Your task to perform on an android device: turn off translation in the chrome app Image 0: 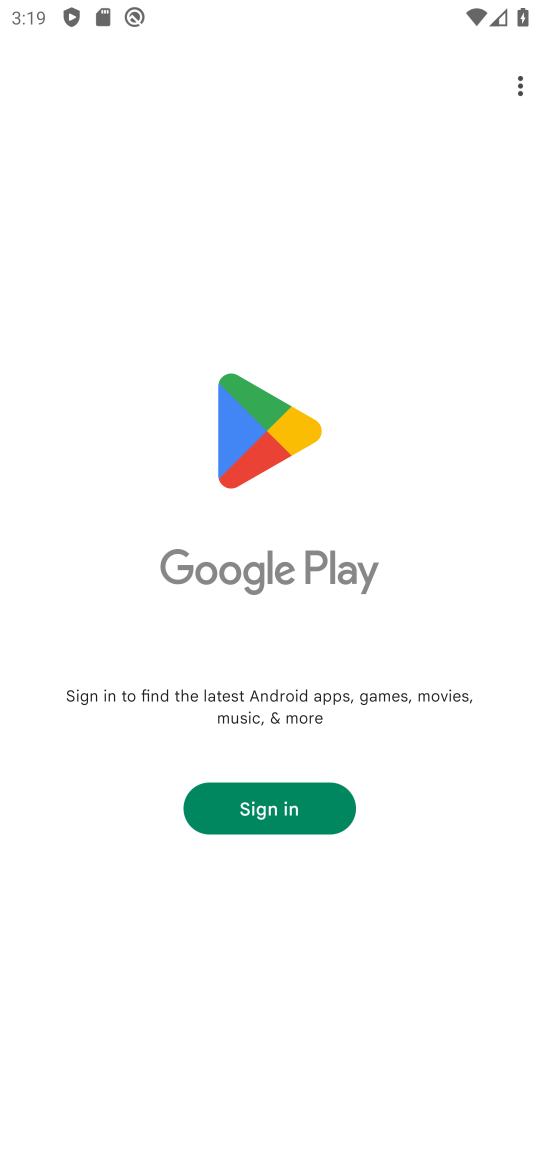
Step 0: press back button
Your task to perform on an android device: turn off translation in the chrome app Image 1: 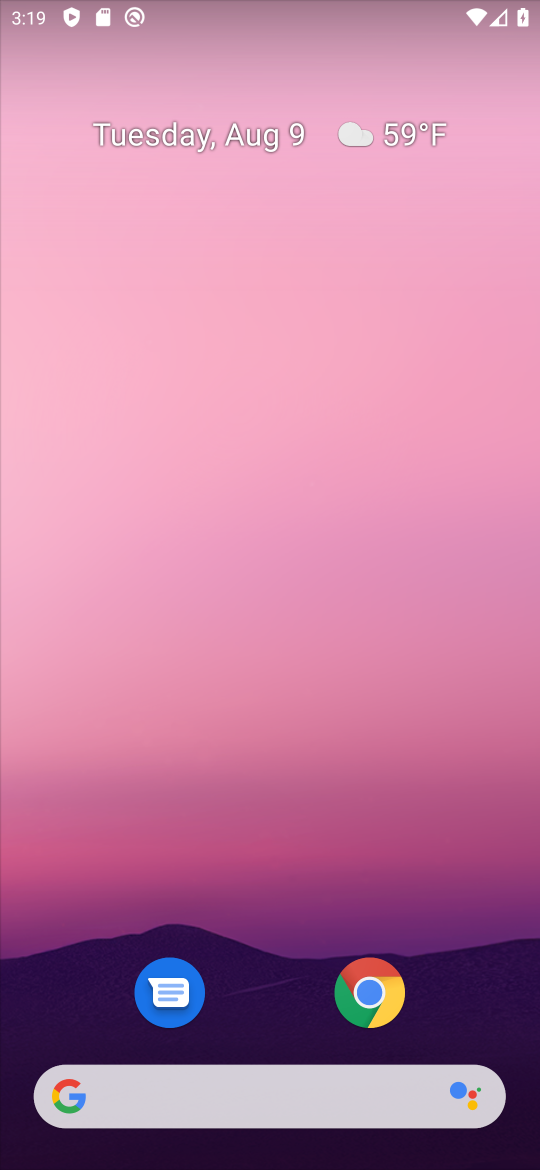
Step 1: click (383, 984)
Your task to perform on an android device: turn off translation in the chrome app Image 2: 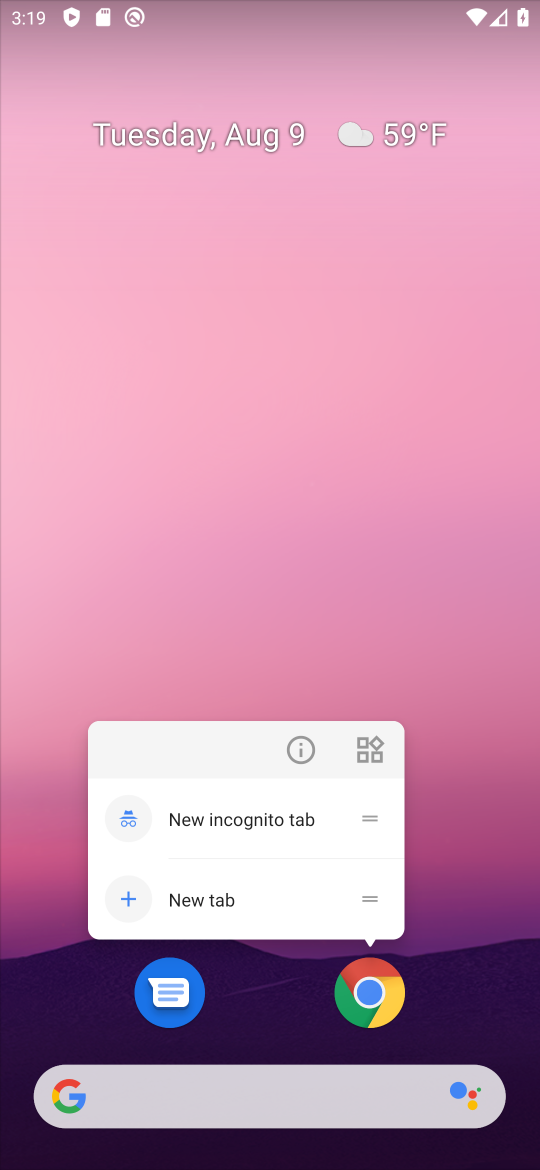
Step 2: click (373, 987)
Your task to perform on an android device: turn off translation in the chrome app Image 3: 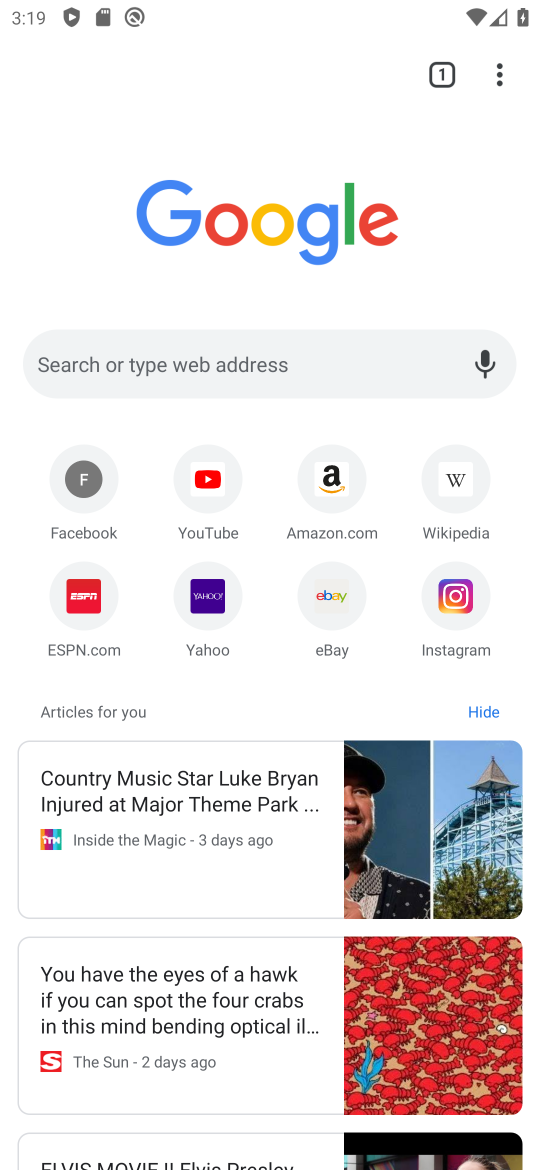
Step 3: drag from (501, 67) to (258, 617)
Your task to perform on an android device: turn off translation in the chrome app Image 4: 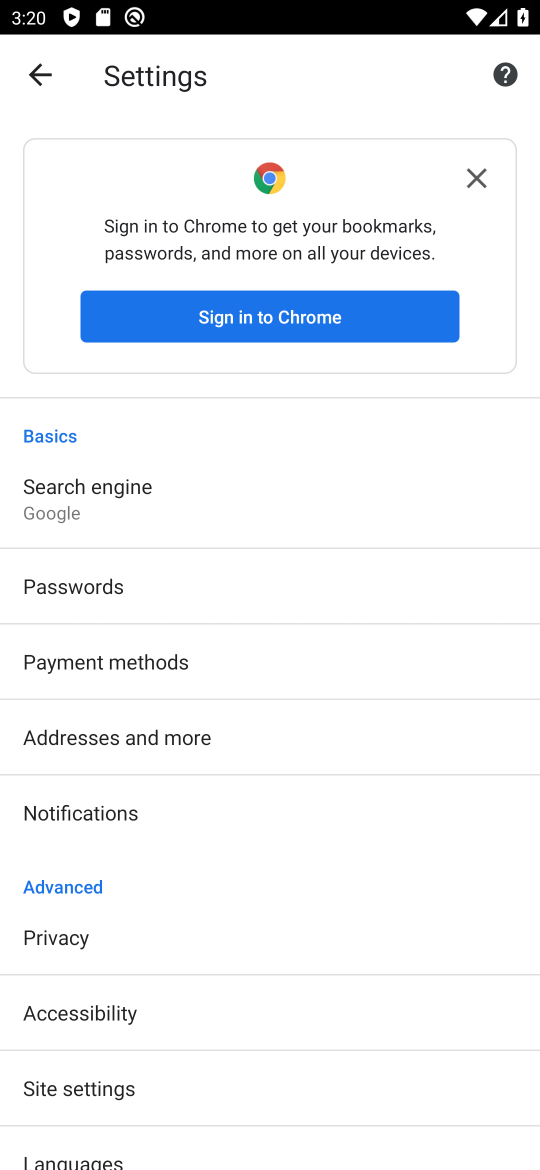
Step 4: click (71, 1146)
Your task to perform on an android device: turn off translation in the chrome app Image 5: 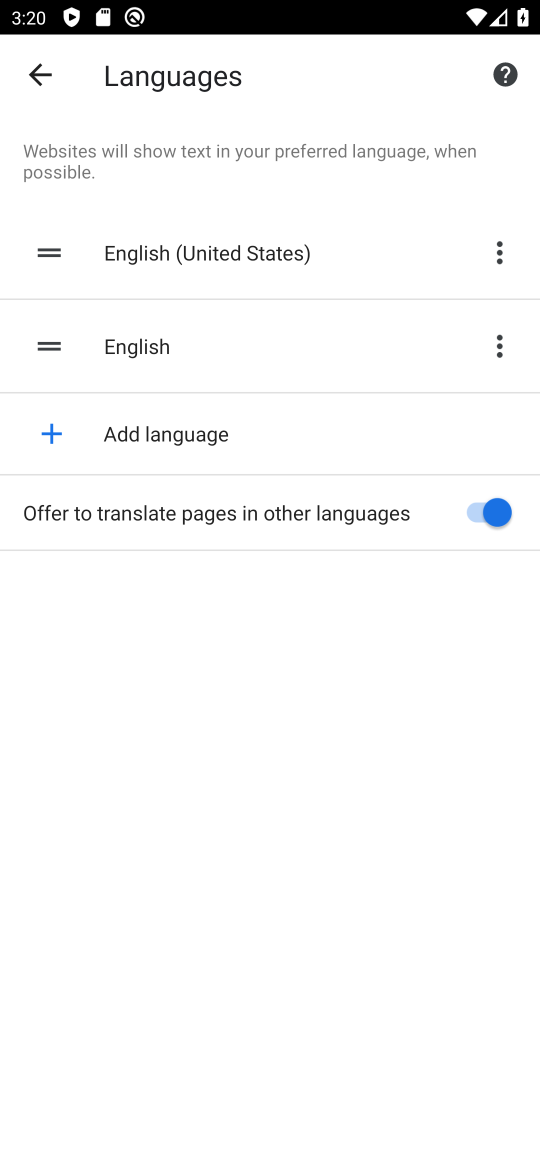
Step 5: click (484, 500)
Your task to perform on an android device: turn off translation in the chrome app Image 6: 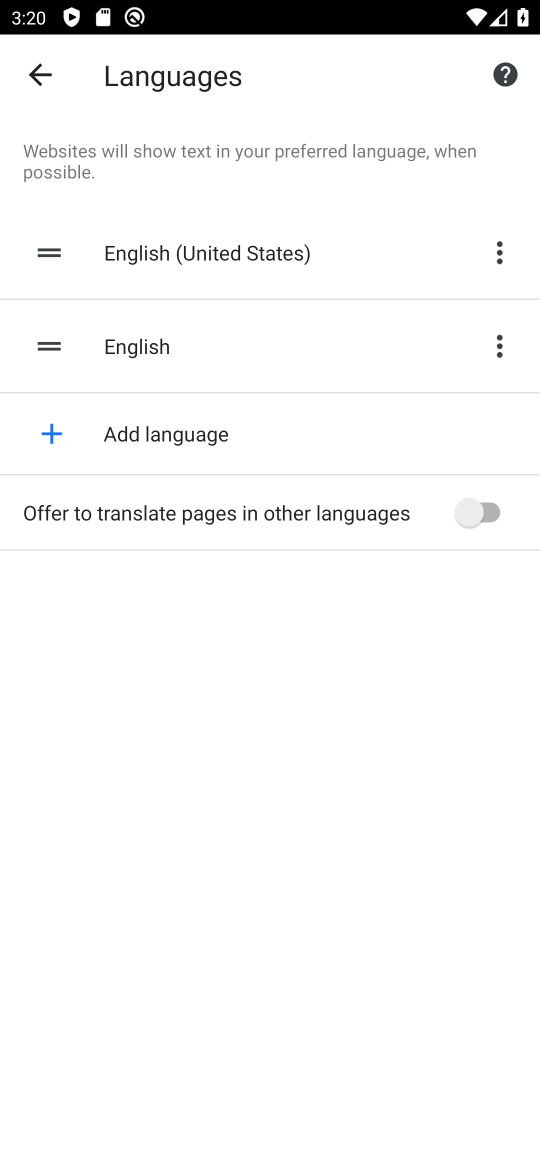
Step 6: task complete